Your task to perform on an android device: turn off sleep mode Image 0: 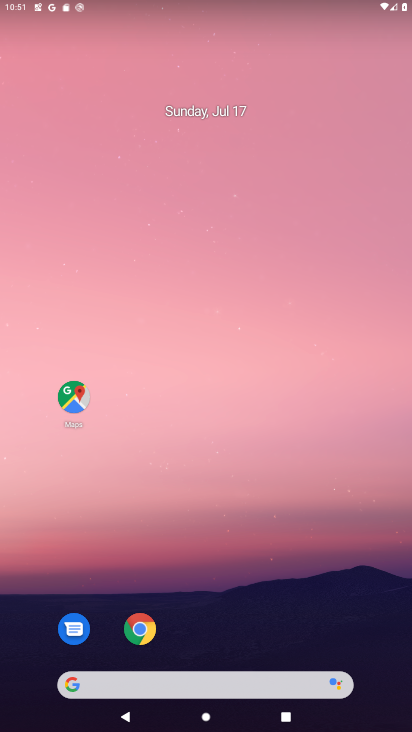
Step 0: drag from (211, 684) to (309, 297)
Your task to perform on an android device: turn off sleep mode Image 1: 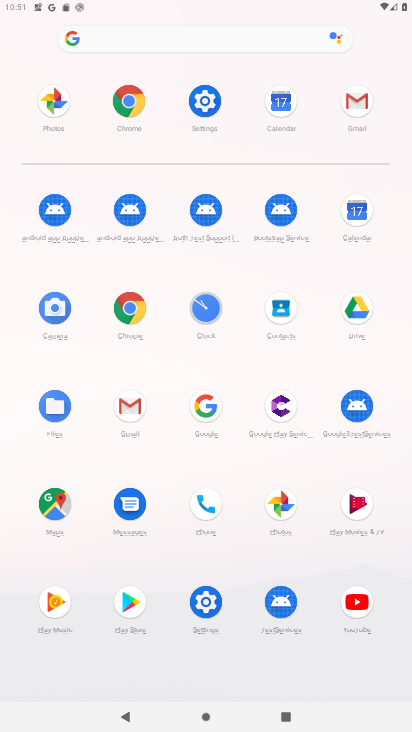
Step 1: click (206, 600)
Your task to perform on an android device: turn off sleep mode Image 2: 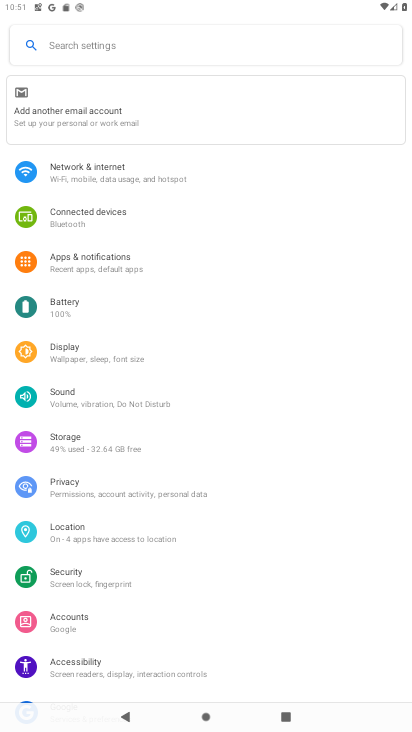
Step 2: click (93, 266)
Your task to perform on an android device: turn off sleep mode Image 3: 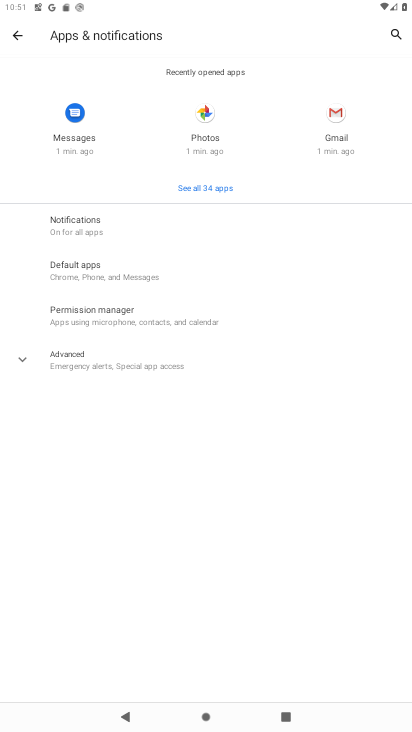
Step 3: press back button
Your task to perform on an android device: turn off sleep mode Image 4: 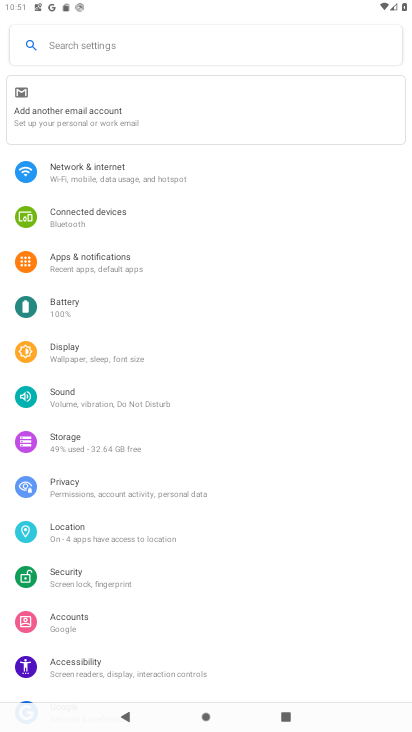
Step 4: click (96, 405)
Your task to perform on an android device: turn off sleep mode Image 5: 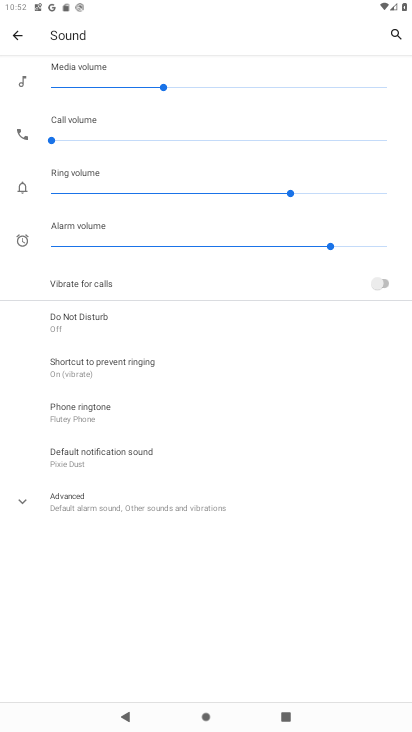
Step 5: press back button
Your task to perform on an android device: turn off sleep mode Image 6: 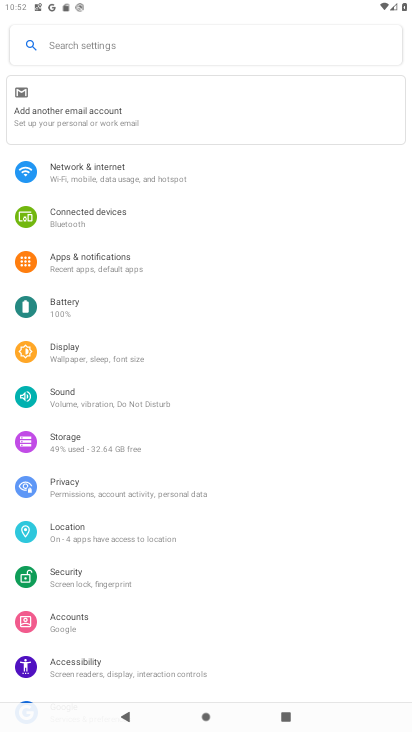
Step 6: click (117, 351)
Your task to perform on an android device: turn off sleep mode Image 7: 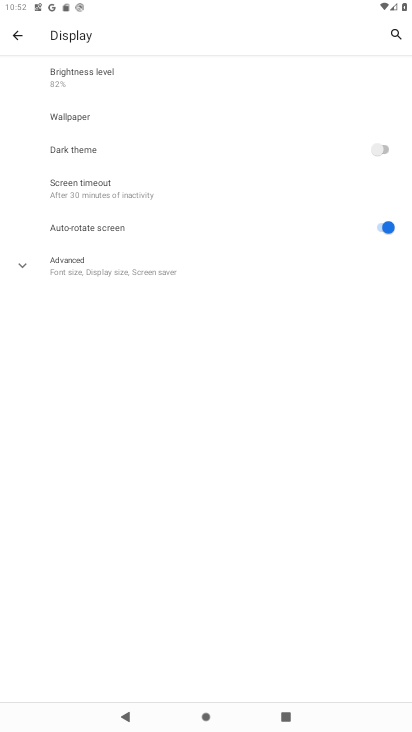
Step 7: task complete